Your task to perform on an android device: Open calendar and show me the second week of next month Image 0: 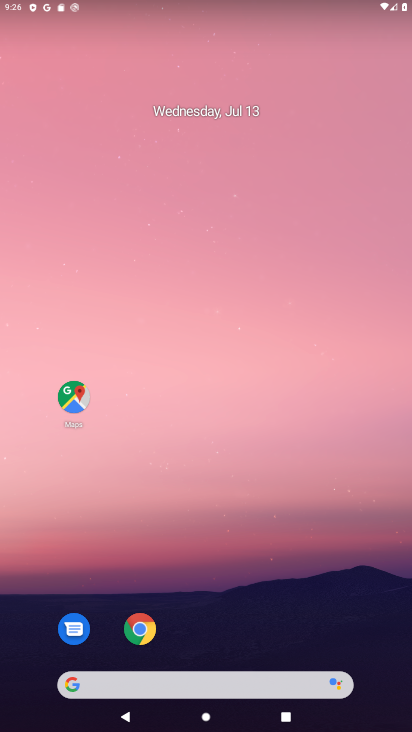
Step 0: drag from (268, 616) to (260, 110)
Your task to perform on an android device: Open calendar and show me the second week of next month Image 1: 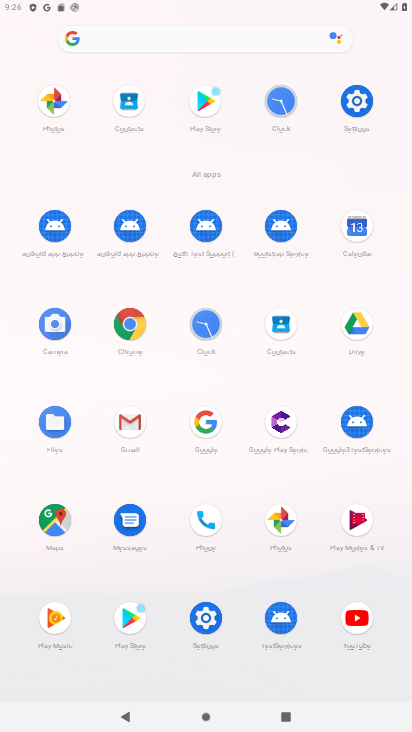
Step 1: click (344, 248)
Your task to perform on an android device: Open calendar and show me the second week of next month Image 2: 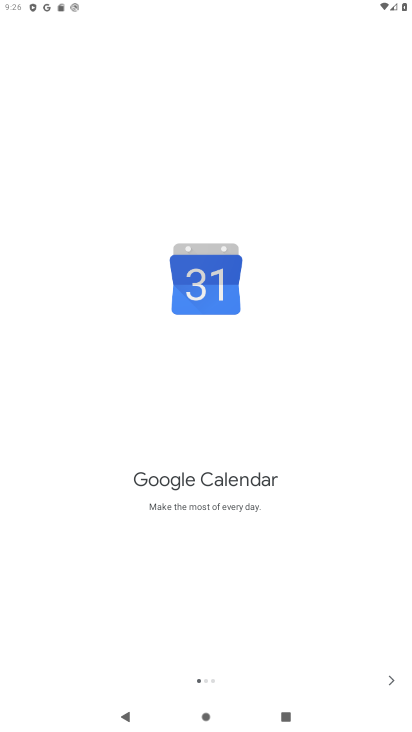
Step 2: click (386, 669)
Your task to perform on an android device: Open calendar and show me the second week of next month Image 3: 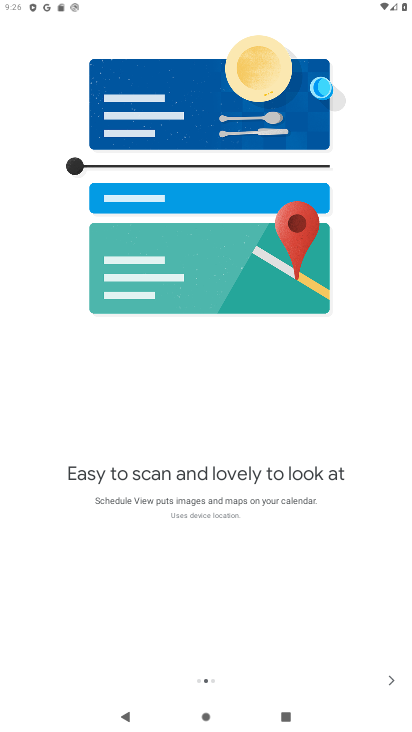
Step 3: click (400, 679)
Your task to perform on an android device: Open calendar and show me the second week of next month Image 4: 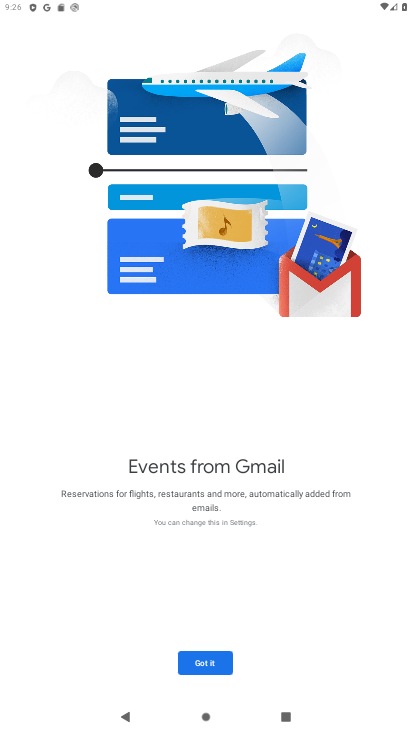
Step 4: click (195, 665)
Your task to perform on an android device: Open calendar and show me the second week of next month Image 5: 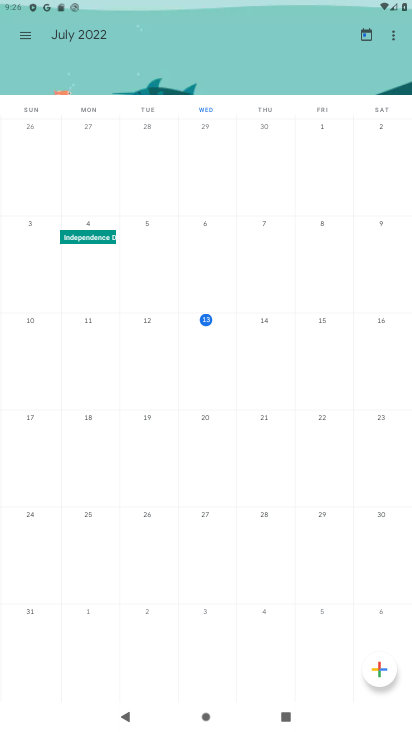
Step 5: task complete